Your task to perform on an android device: turn off notifications settings in the gmail app Image 0: 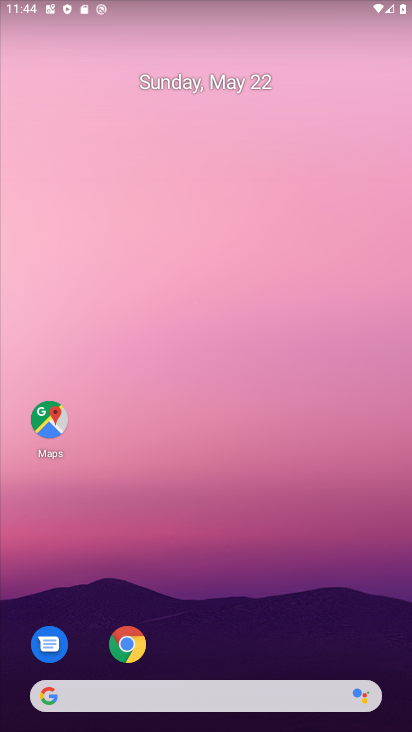
Step 0: drag from (387, 634) to (236, 135)
Your task to perform on an android device: turn off notifications settings in the gmail app Image 1: 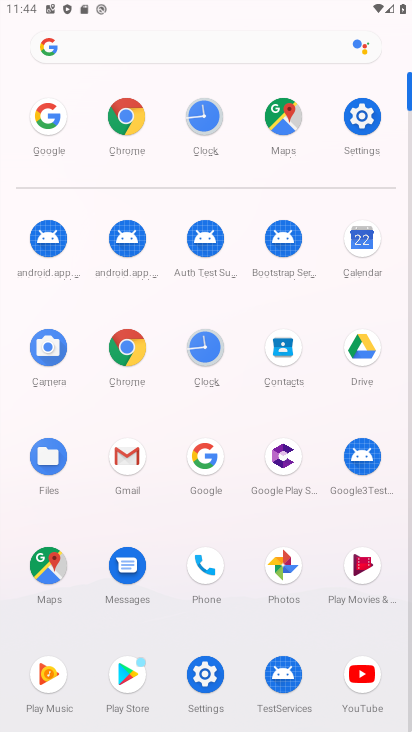
Step 1: click (134, 462)
Your task to perform on an android device: turn off notifications settings in the gmail app Image 2: 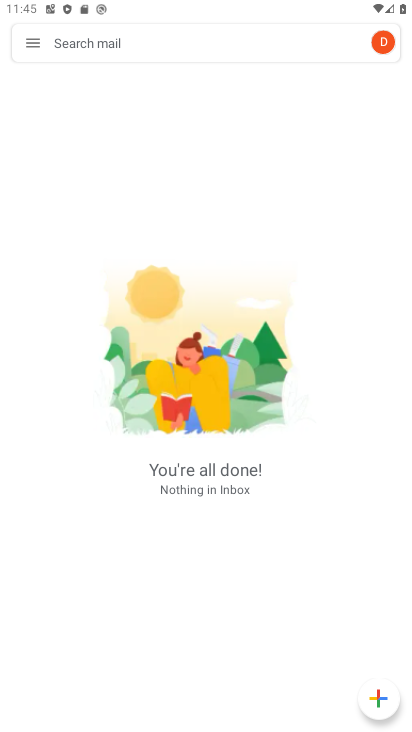
Step 2: click (34, 44)
Your task to perform on an android device: turn off notifications settings in the gmail app Image 3: 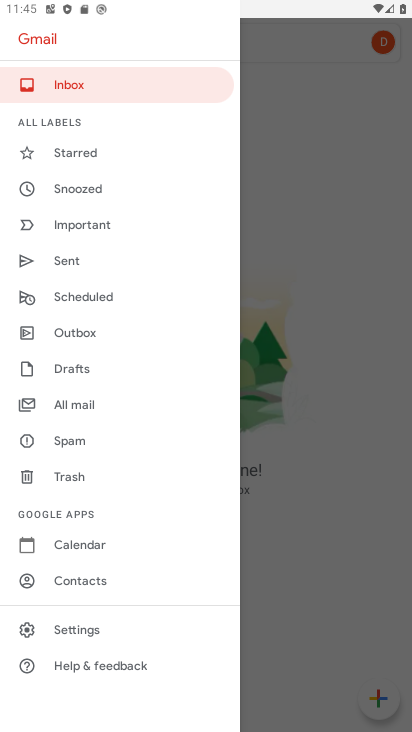
Step 3: click (84, 620)
Your task to perform on an android device: turn off notifications settings in the gmail app Image 4: 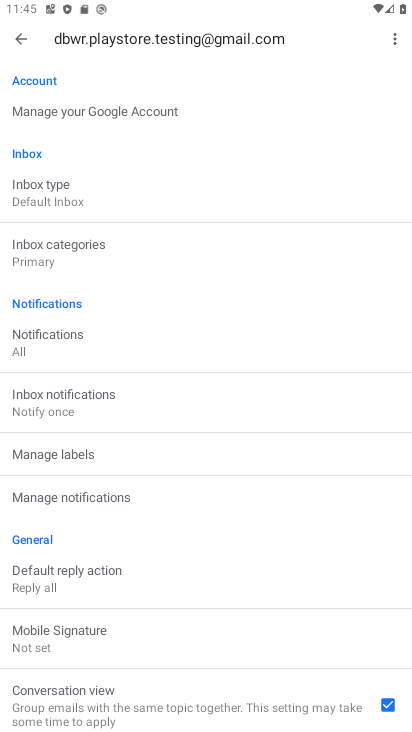
Step 4: click (115, 329)
Your task to perform on an android device: turn off notifications settings in the gmail app Image 5: 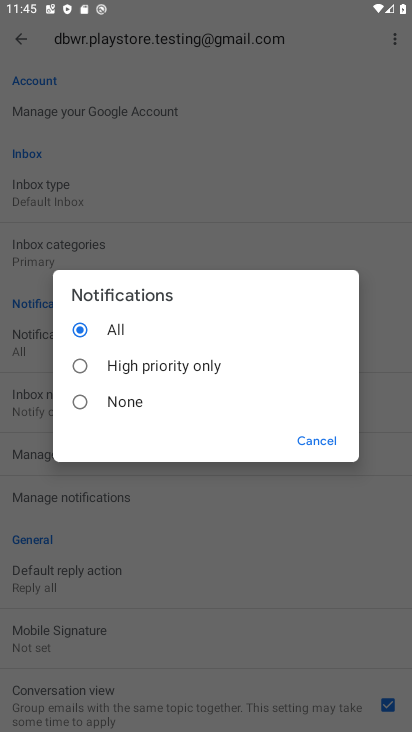
Step 5: click (112, 396)
Your task to perform on an android device: turn off notifications settings in the gmail app Image 6: 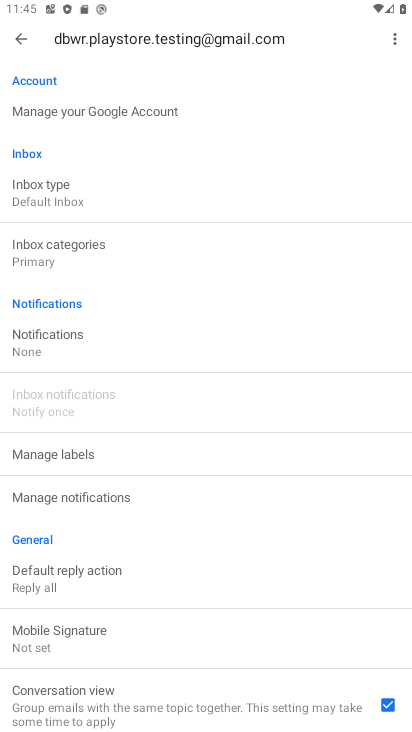
Step 6: task complete